Your task to perform on an android device: open sync settings in chrome Image 0: 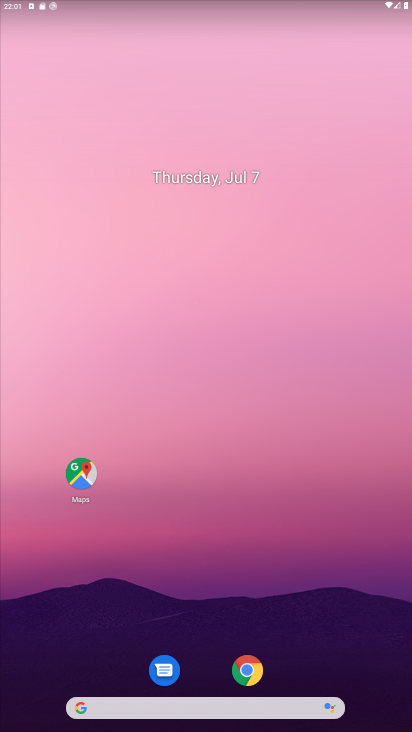
Step 0: click (241, 659)
Your task to perform on an android device: open sync settings in chrome Image 1: 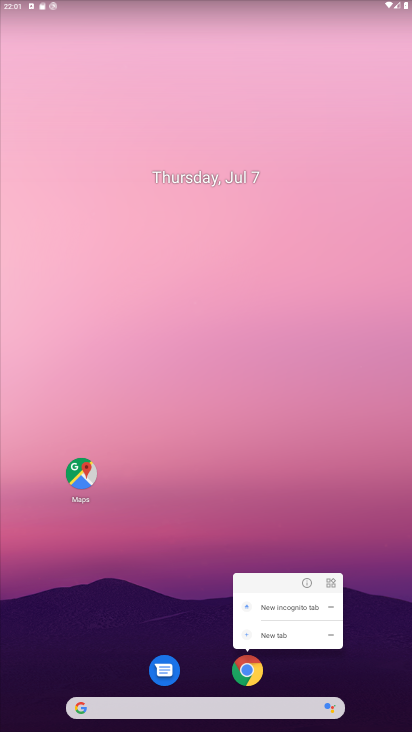
Step 1: click (251, 664)
Your task to perform on an android device: open sync settings in chrome Image 2: 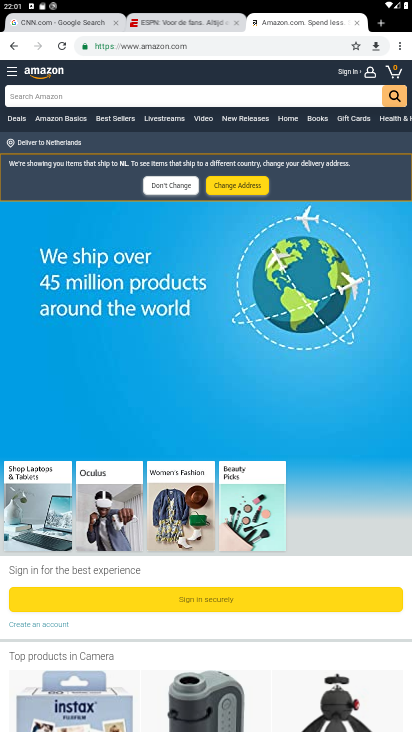
Step 2: click (402, 40)
Your task to perform on an android device: open sync settings in chrome Image 3: 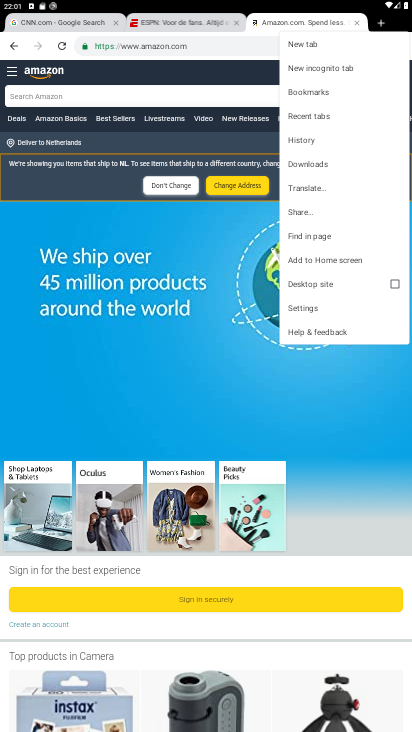
Step 3: click (321, 300)
Your task to perform on an android device: open sync settings in chrome Image 4: 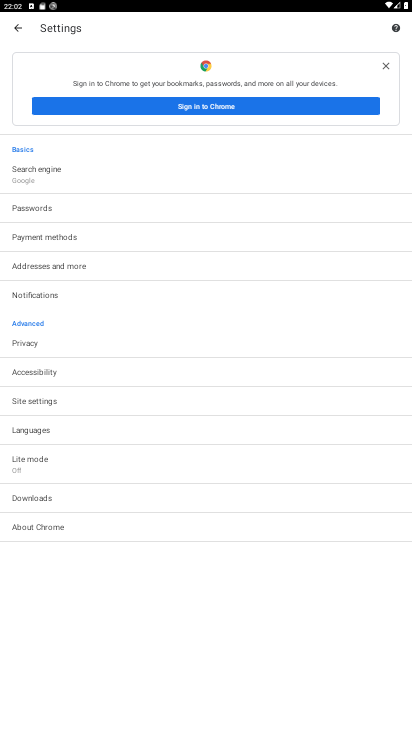
Step 4: task complete